Your task to perform on an android device: Open Maps and search for coffee Image 0: 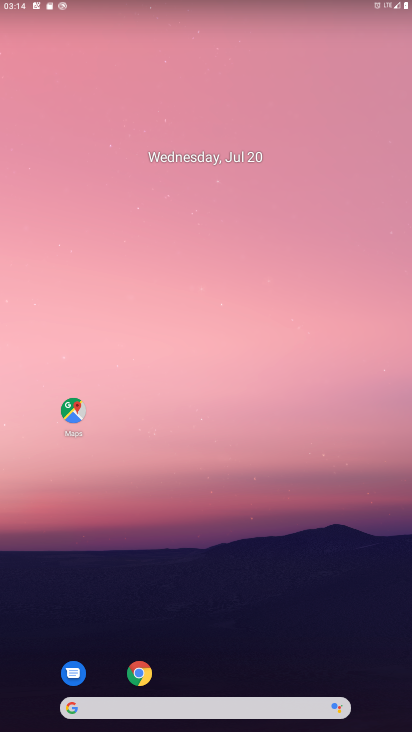
Step 0: click (81, 414)
Your task to perform on an android device: Open Maps and search for coffee Image 1: 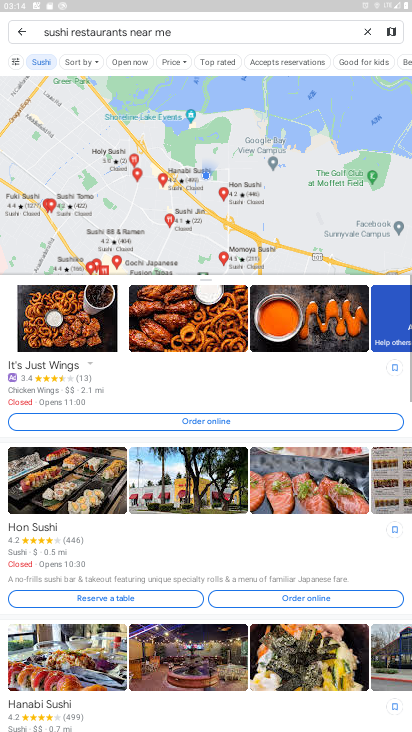
Step 1: click (365, 30)
Your task to perform on an android device: Open Maps and search for coffee Image 2: 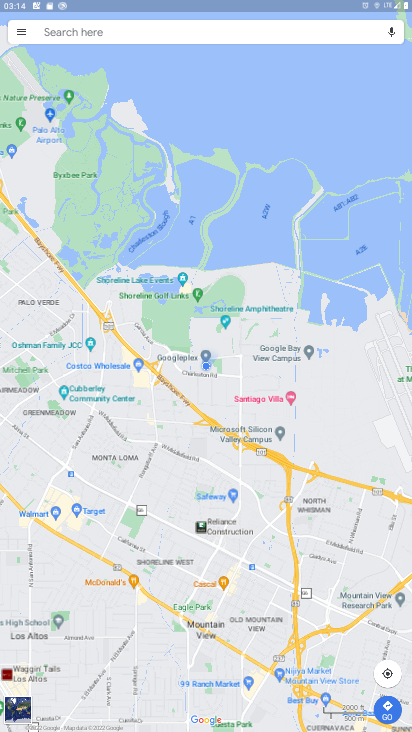
Step 2: click (196, 35)
Your task to perform on an android device: Open Maps and search for coffee Image 3: 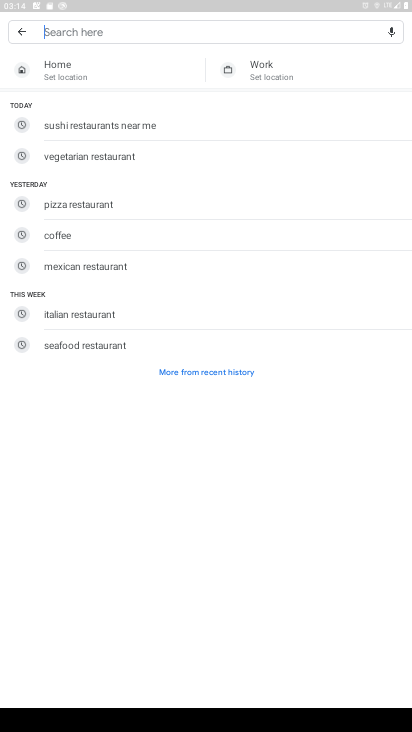
Step 3: type "coffee"
Your task to perform on an android device: Open Maps and search for coffee Image 4: 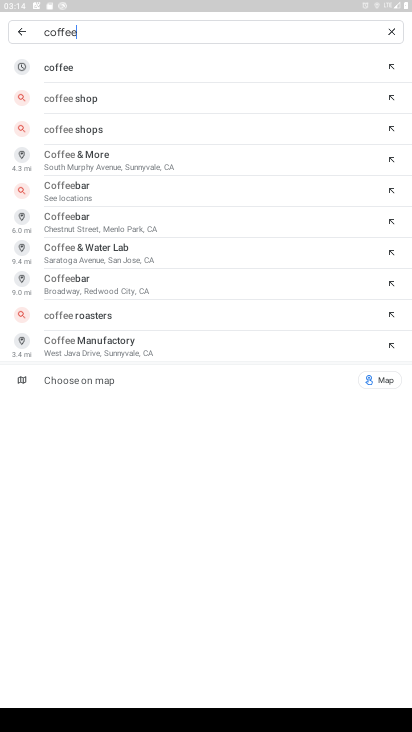
Step 4: click (82, 63)
Your task to perform on an android device: Open Maps and search for coffee Image 5: 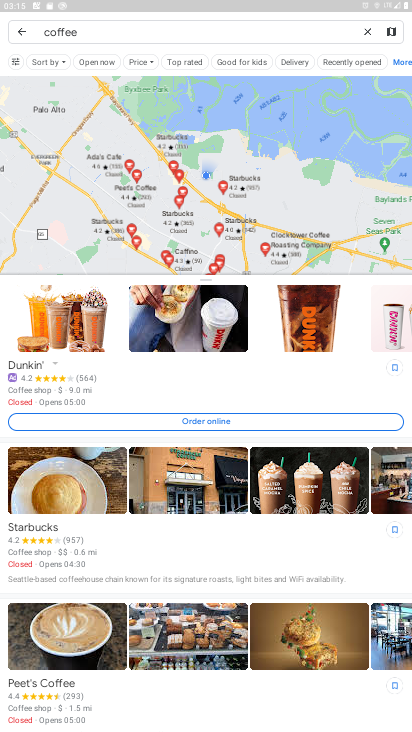
Step 5: task complete